Your task to perform on an android device: change the clock display to analog Image 0: 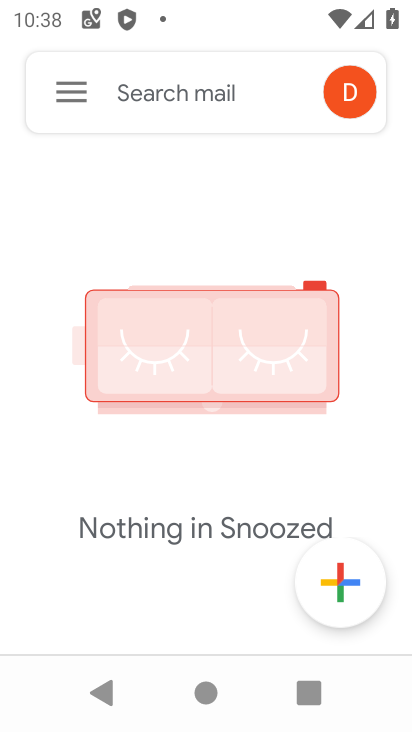
Step 0: press home button
Your task to perform on an android device: change the clock display to analog Image 1: 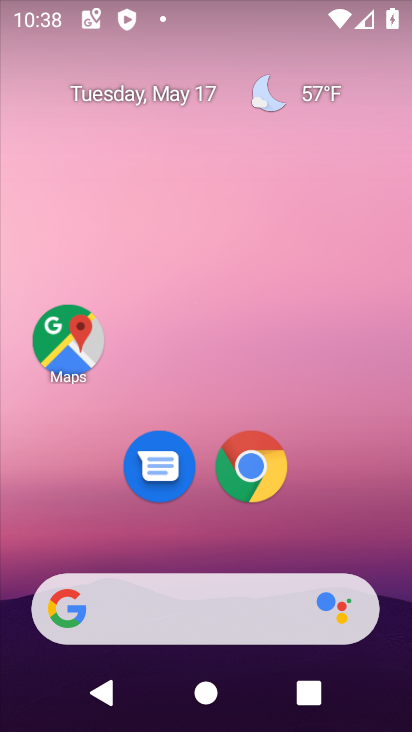
Step 1: drag from (191, 547) to (379, 1)
Your task to perform on an android device: change the clock display to analog Image 2: 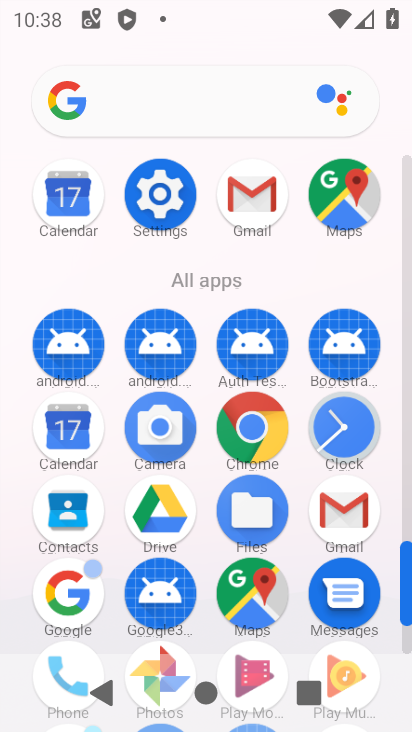
Step 2: click (342, 435)
Your task to perform on an android device: change the clock display to analog Image 3: 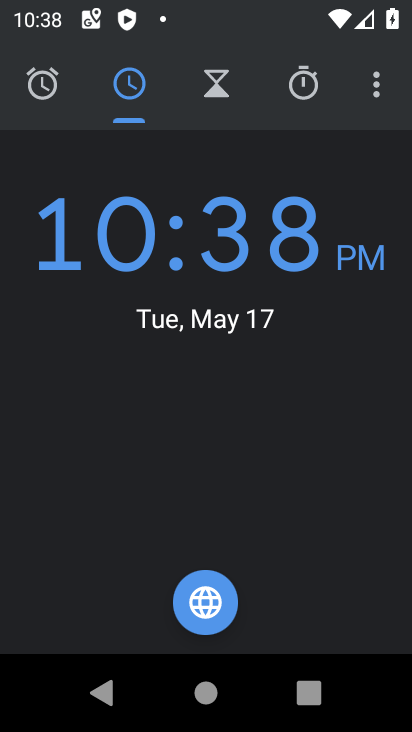
Step 3: click (379, 76)
Your task to perform on an android device: change the clock display to analog Image 4: 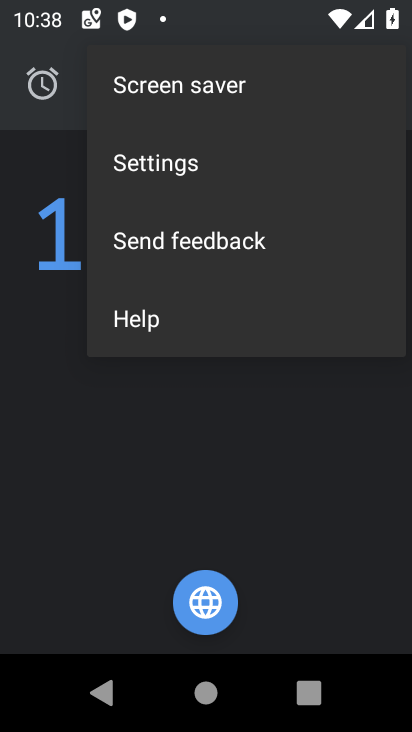
Step 4: click (175, 168)
Your task to perform on an android device: change the clock display to analog Image 5: 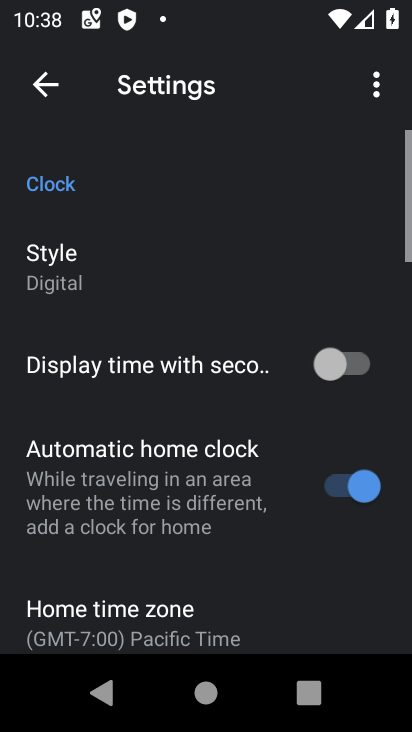
Step 5: click (87, 277)
Your task to perform on an android device: change the clock display to analog Image 6: 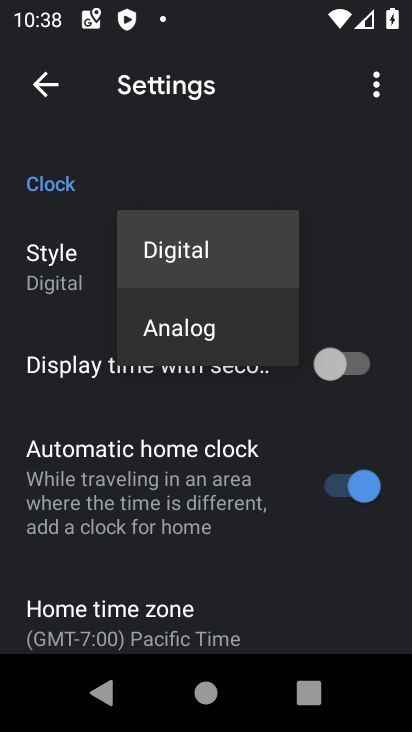
Step 6: click (166, 322)
Your task to perform on an android device: change the clock display to analog Image 7: 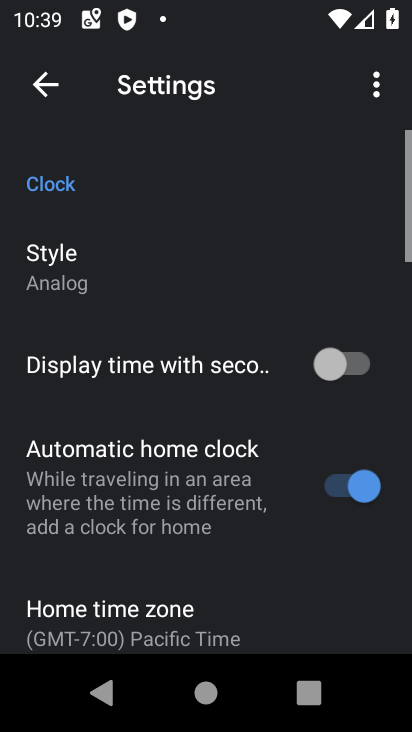
Step 7: task complete